Your task to perform on an android device: change the clock style Image 0: 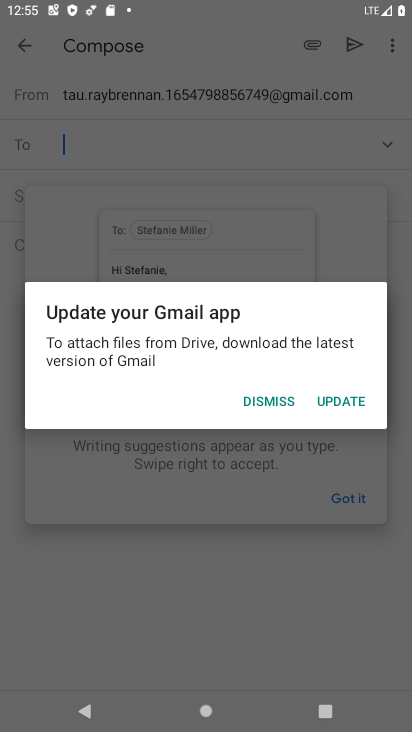
Step 0: press home button
Your task to perform on an android device: change the clock style Image 1: 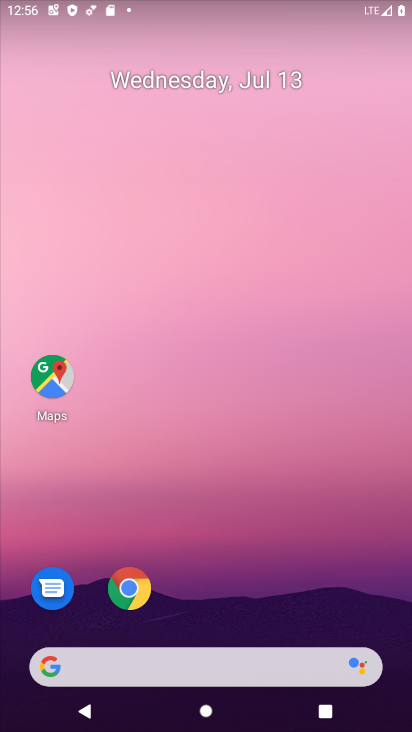
Step 1: drag from (404, 618) to (390, 115)
Your task to perform on an android device: change the clock style Image 2: 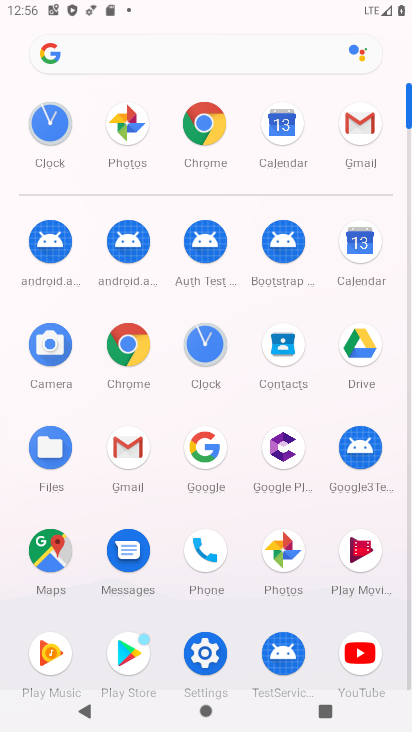
Step 2: click (210, 346)
Your task to perform on an android device: change the clock style Image 3: 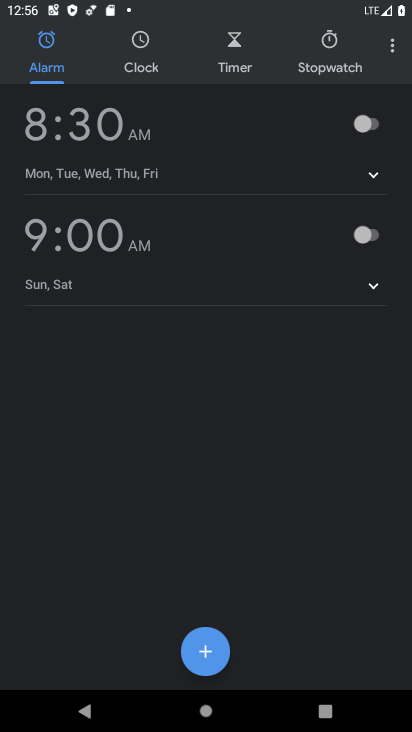
Step 3: click (387, 46)
Your task to perform on an android device: change the clock style Image 4: 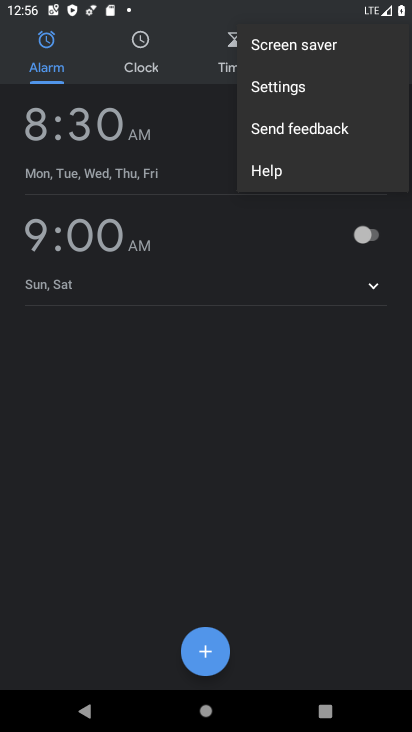
Step 4: click (280, 88)
Your task to perform on an android device: change the clock style Image 5: 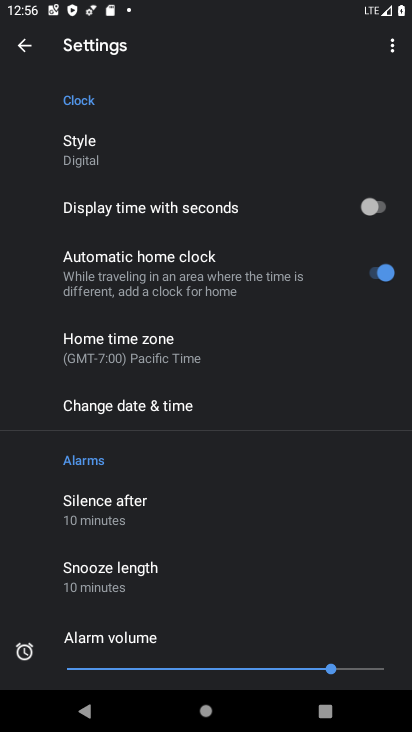
Step 5: click (90, 150)
Your task to perform on an android device: change the clock style Image 6: 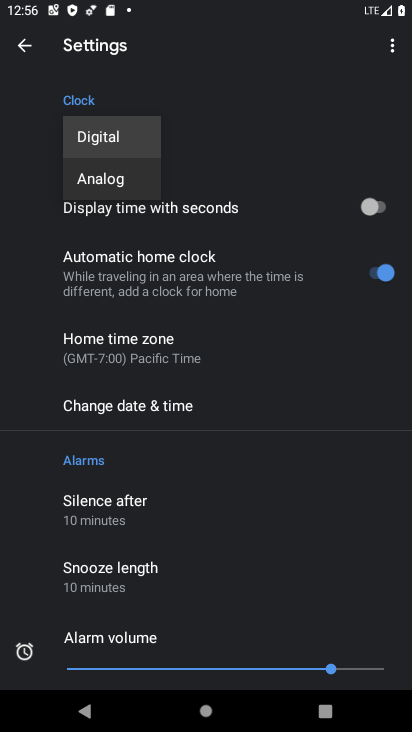
Step 6: click (102, 176)
Your task to perform on an android device: change the clock style Image 7: 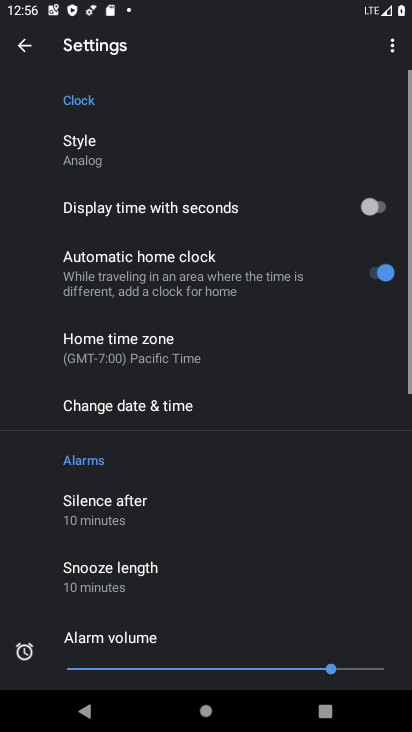
Step 7: task complete